Your task to perform on an android device: Open settings on Google Maps Image 0: 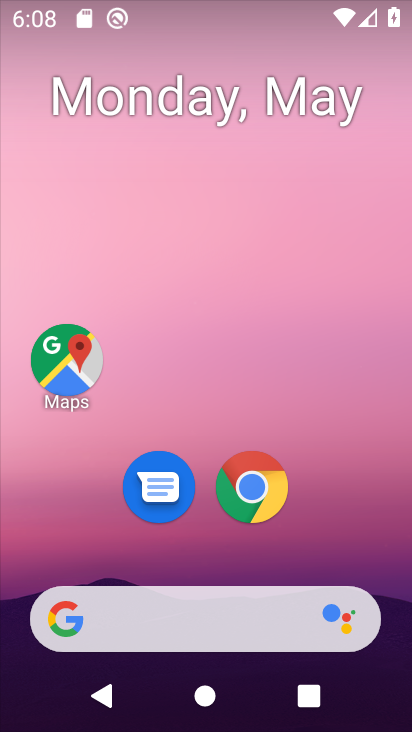
Step 0: click (64, 353)
Your task to perform on an android device: Open settings on Google Maps Image 1: 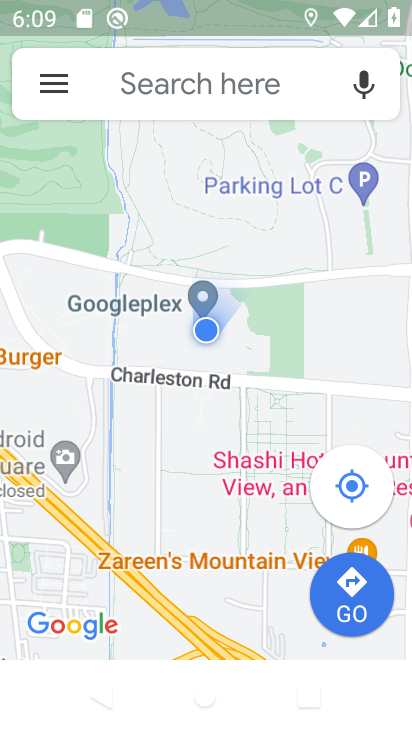
Step 1: click (52, 83)
Your task to perform on an android device: Open settings on Google Maps Image 2: 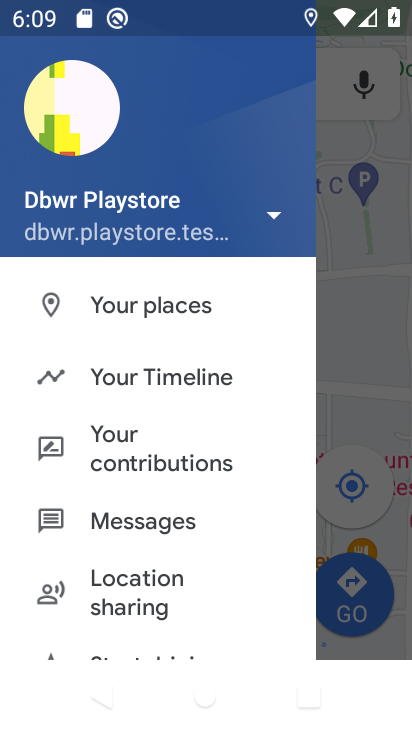
Step 2: drag from (180, 614) to (255, 55)
Your task to perform on an android device: Open settings on Google Maps Image 3: 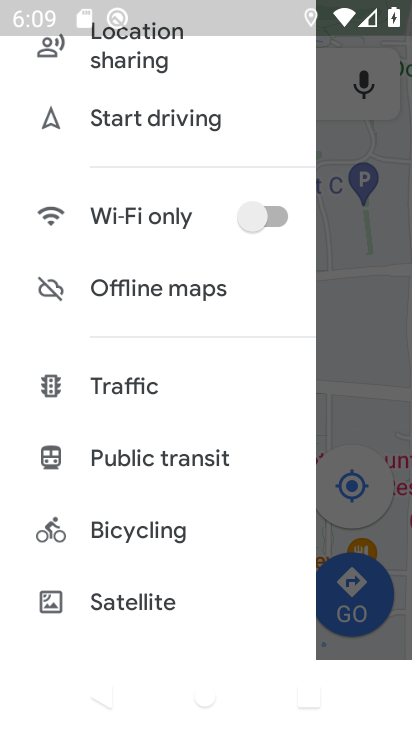
Step 3: drag from (176, 579) to (207, 70)
Your task to perform on an android device: Open settings on Google Maps Image 4: 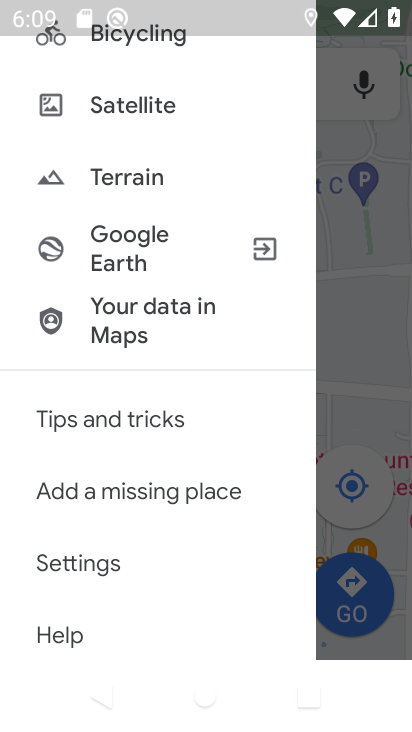
Step 4: click (127, 560)
Your task to perform on an android device: Open settings on Google Maps Image 5: 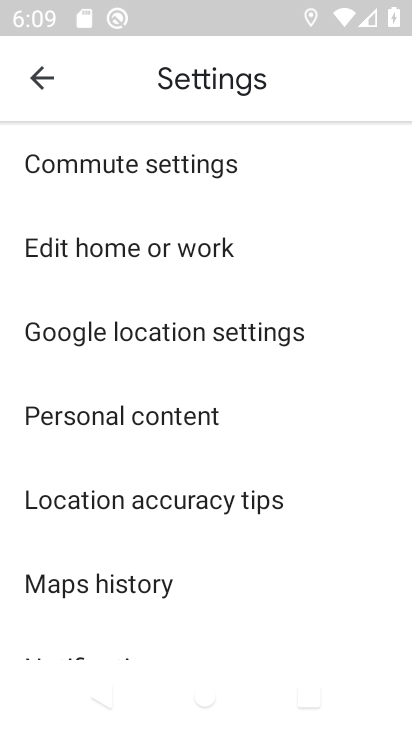
Step 5: task complete